Your task to perform on an android device: What's the weather going to be tomorrow? Image 0: 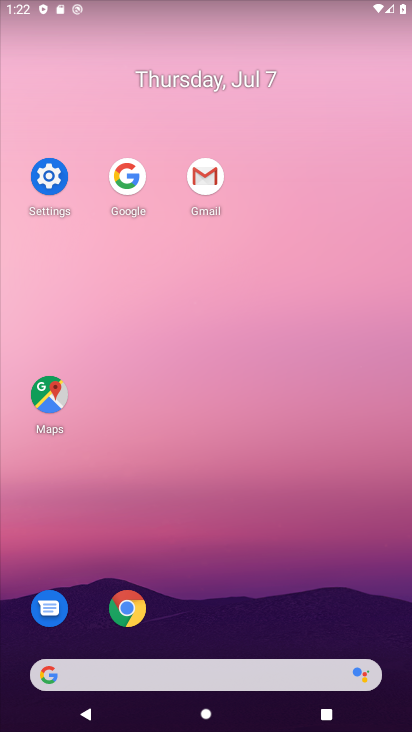
Step 0: click (121, 182)
Your task to perform on an android device: What's the weather going to be tomorrow? Image 1: 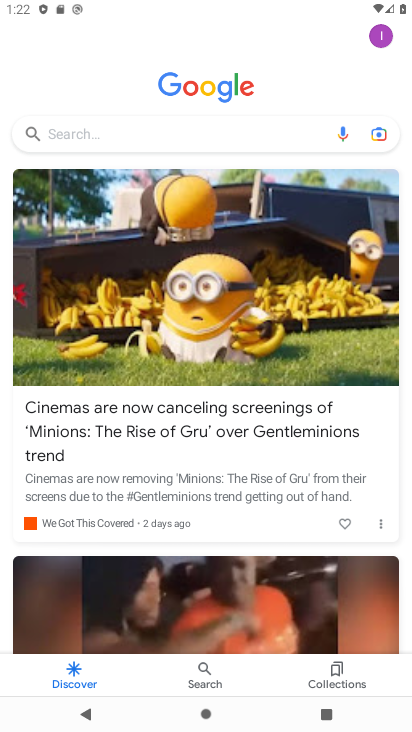
Step 1: click (139, 125)
Your task to perform on an android device: What's the weather going to be tomorrow? Image 2: 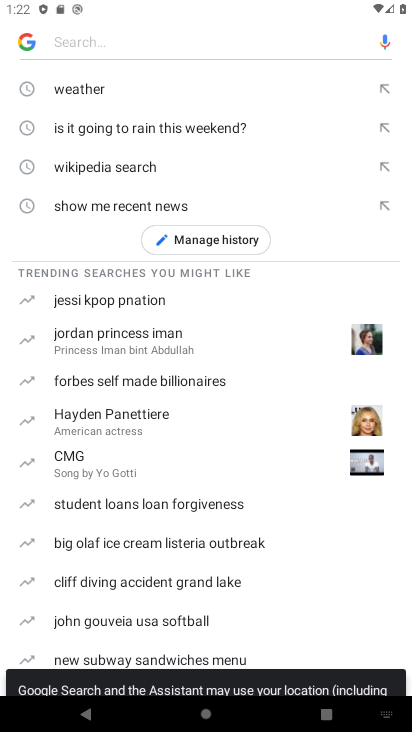
Step 2: click (99, 90)
Your task to perform on an android device: What's the weather going to be tomorrow? Image 3: 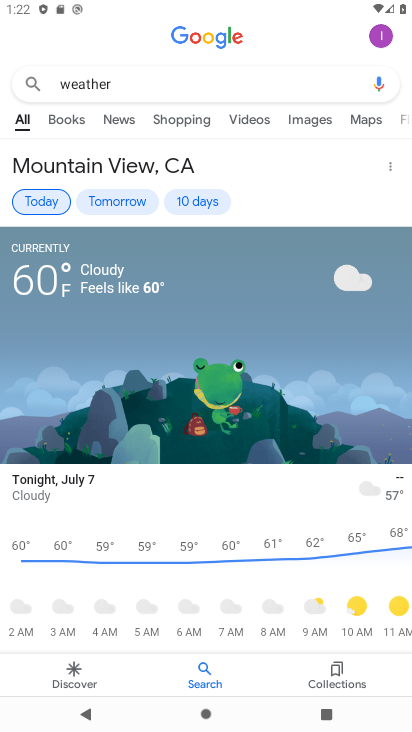
Step 3: click (134, 200)
Your task to perform on an android device: What's the weather going to be tomorrow? Image 4: 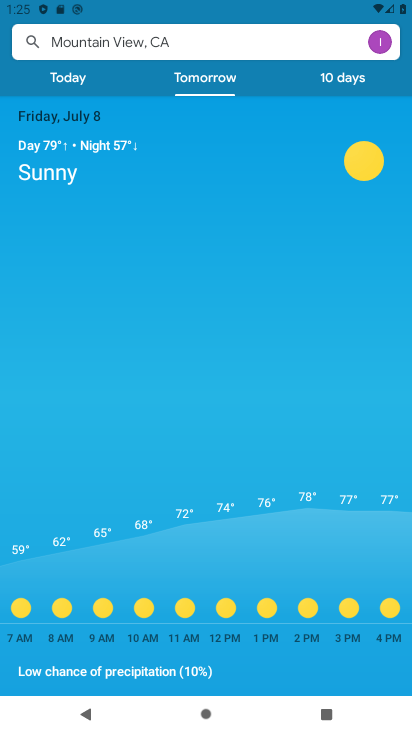
Step 4: task complete